Your task to perform on an android device: Turn on the flashlight Image 0: 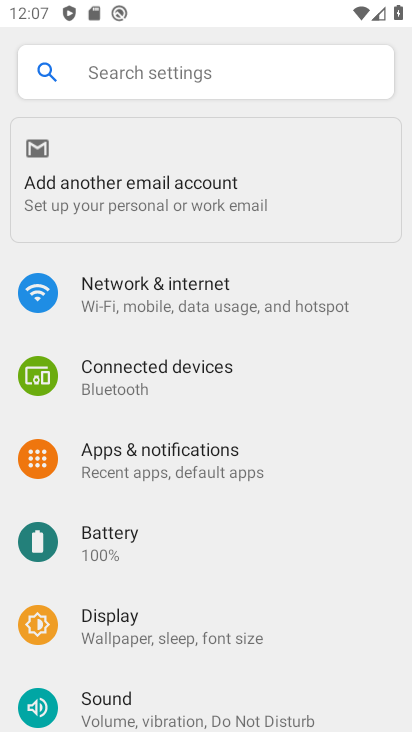
Step 0: click (136, 76)
Your task to perform on an android device: Turn on the flashlight Image 1: 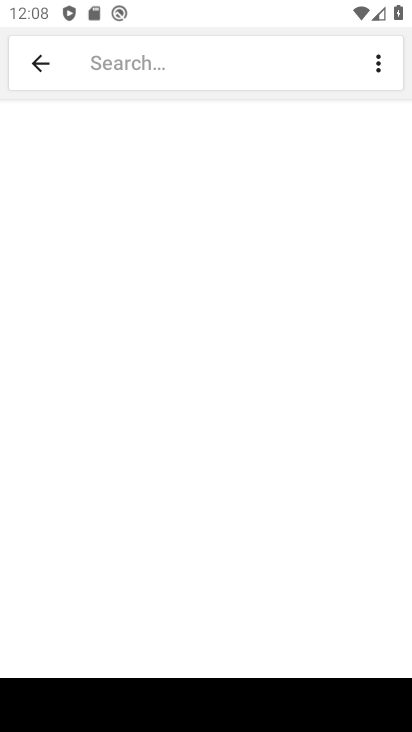
Step 1: type "flashlight"
Your task to perform on an android device: Turn on the flashlight Image 2: 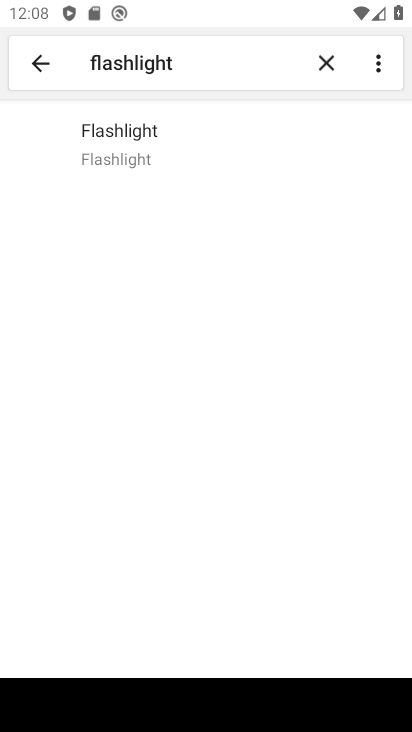
Step 2: click (174, 145)
Your task to perform on an android device: Turn on the flashlight Image 3: 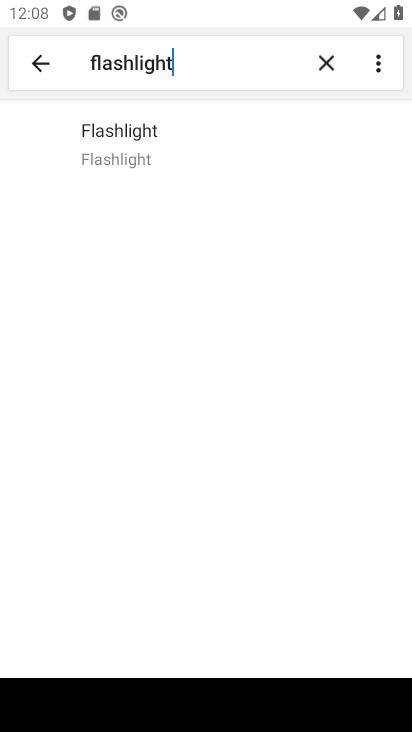
Step 3: task complete